Your task to perform on an android device: Open Maps and search for coffee Image 0: 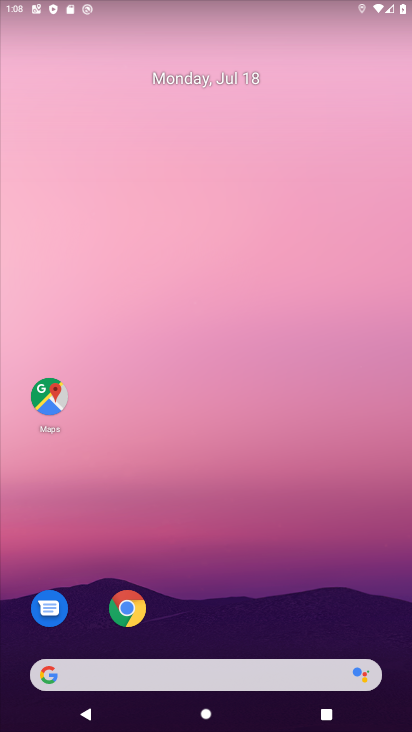
Step 0: drag from (294, 631) to (197, 21)
Your task to perform on an android device: Open Maps and search for coffee Image 1: 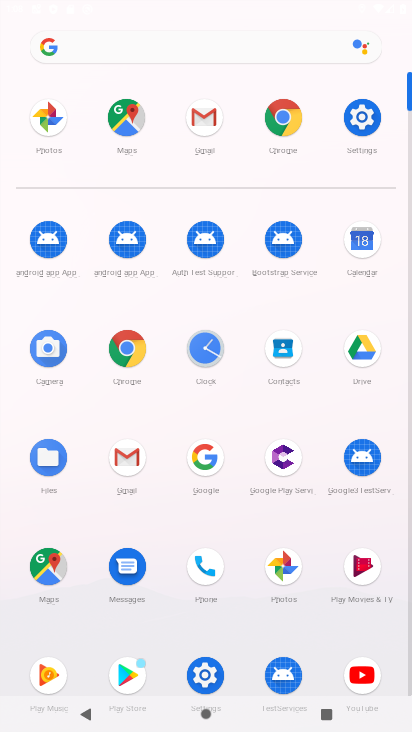
Step 1: click (135, 116)
Your task to perform on an android device: Open Maps and search for coffee Image 2: 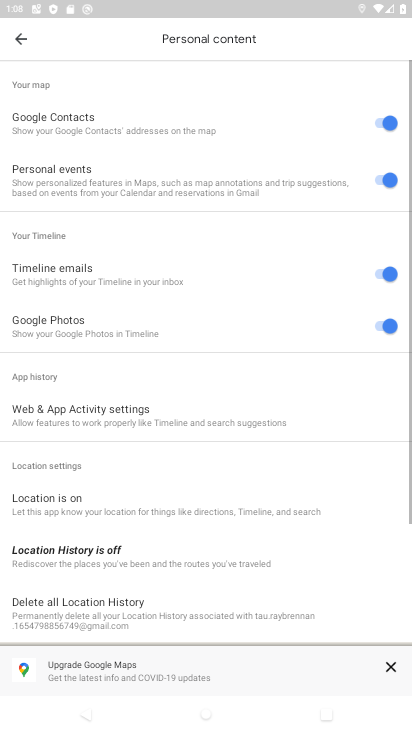
Step 2: click (22, 33)
Your task to perform on an android device: Open Maps and search for coffee Image 3: 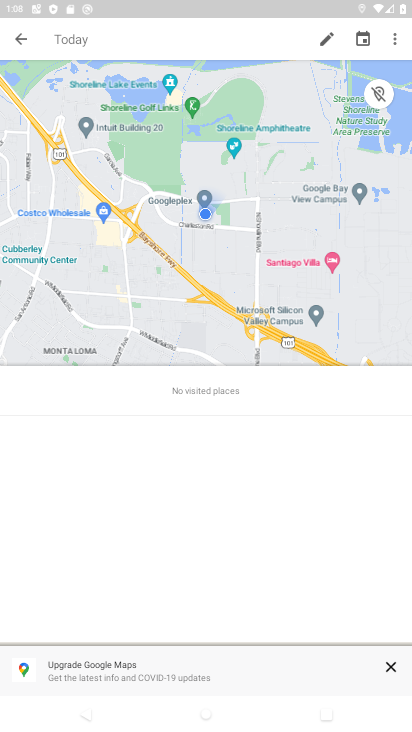
Step 3: click (22, 33)
Your task to perform on an android device: Open Maps and search for coffee Image 4: 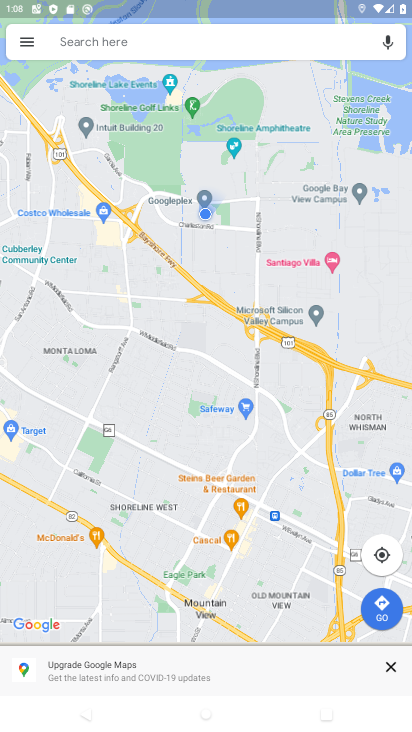
Step 4: click (214, 39)
Your task to perform on an android device: Open Maps and search for coffee Image 5: 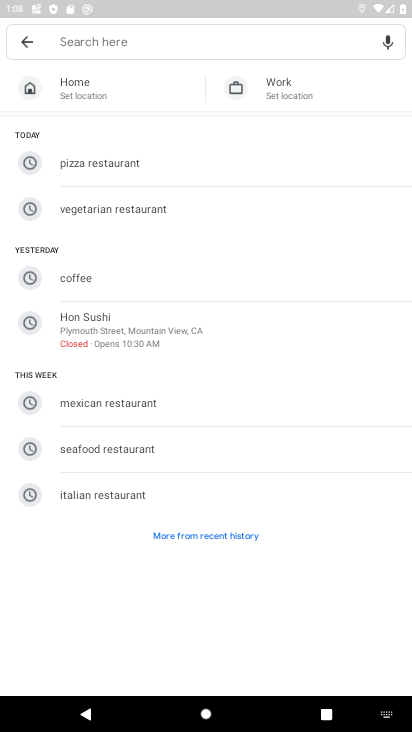
Step 5: click (217, 282)
Your task to perform on an android device: Open Maps and search for coffee Image 6: 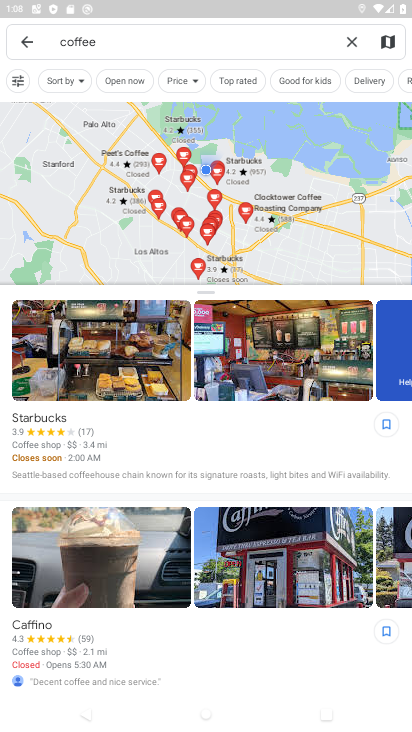
Step 6: task complete